Your task to perform on an android device: What is the news today? Image 0: 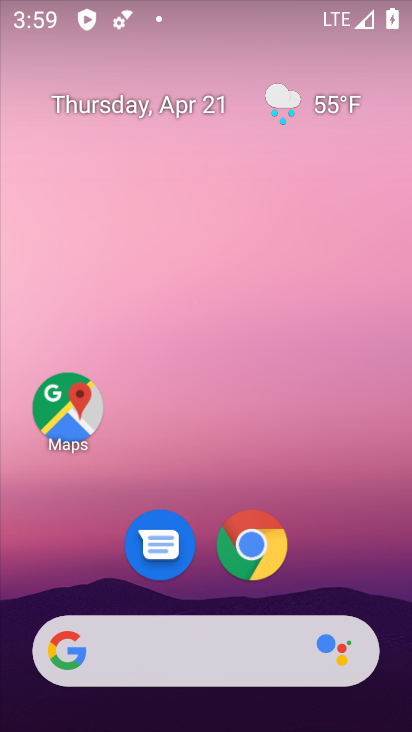
Step 0: drag from (253, 639) to (237, 151)
Your task to perform on an android device: What is the news today? Image 1: 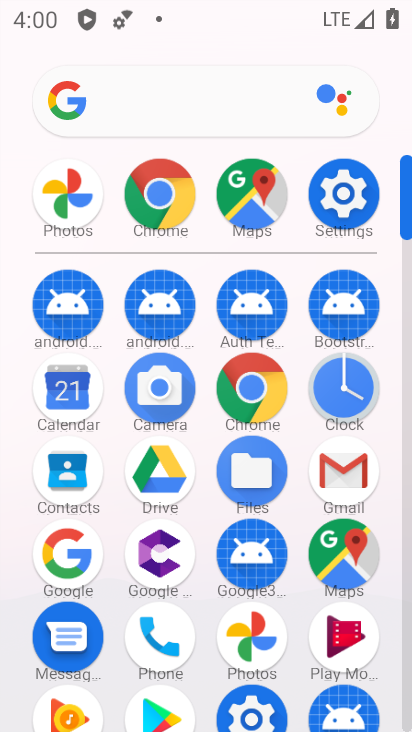
Step 1: click (80, 556)
Your task to perform on an android device: What is the news today? Image 2: 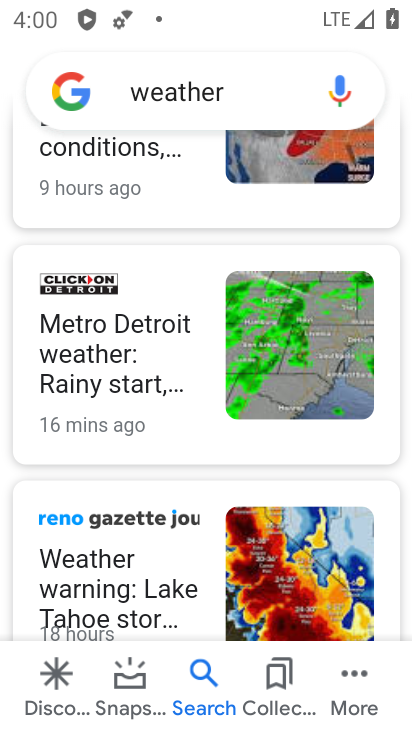
Step 2: task complete